Your task to perform on an android device: Open maps Image 0: 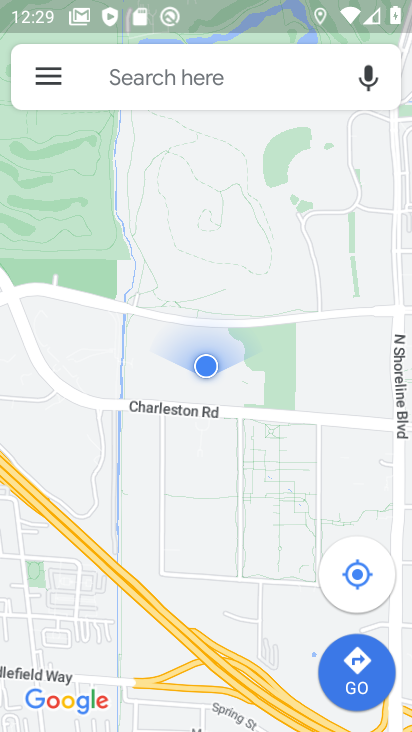
Step 0: task complete